Your task to perform on an android device: What's the weather like in Los Angeles? Image 0: 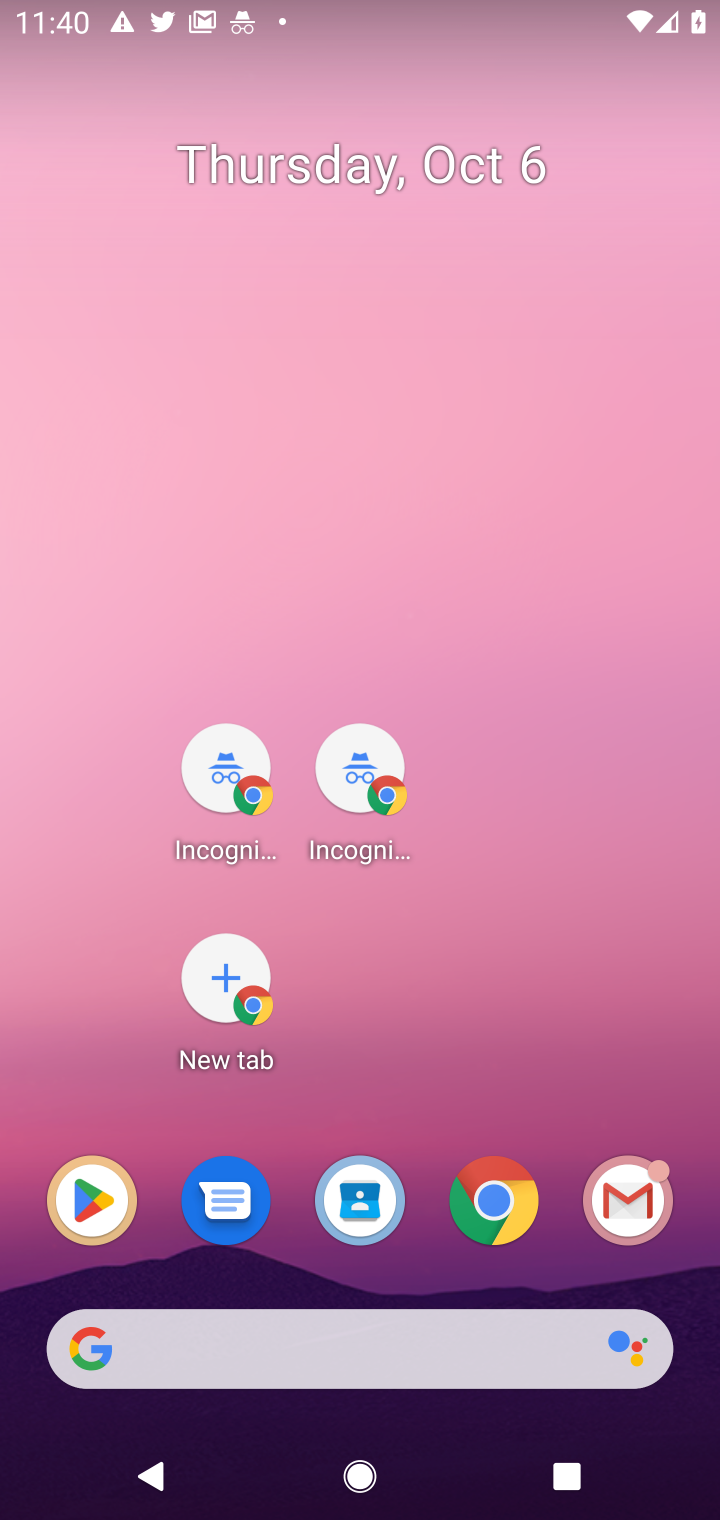
Step 0: click (486, 1205)
Your task to perform on an android device: What's the weather like in Los Angeles? Image 1: 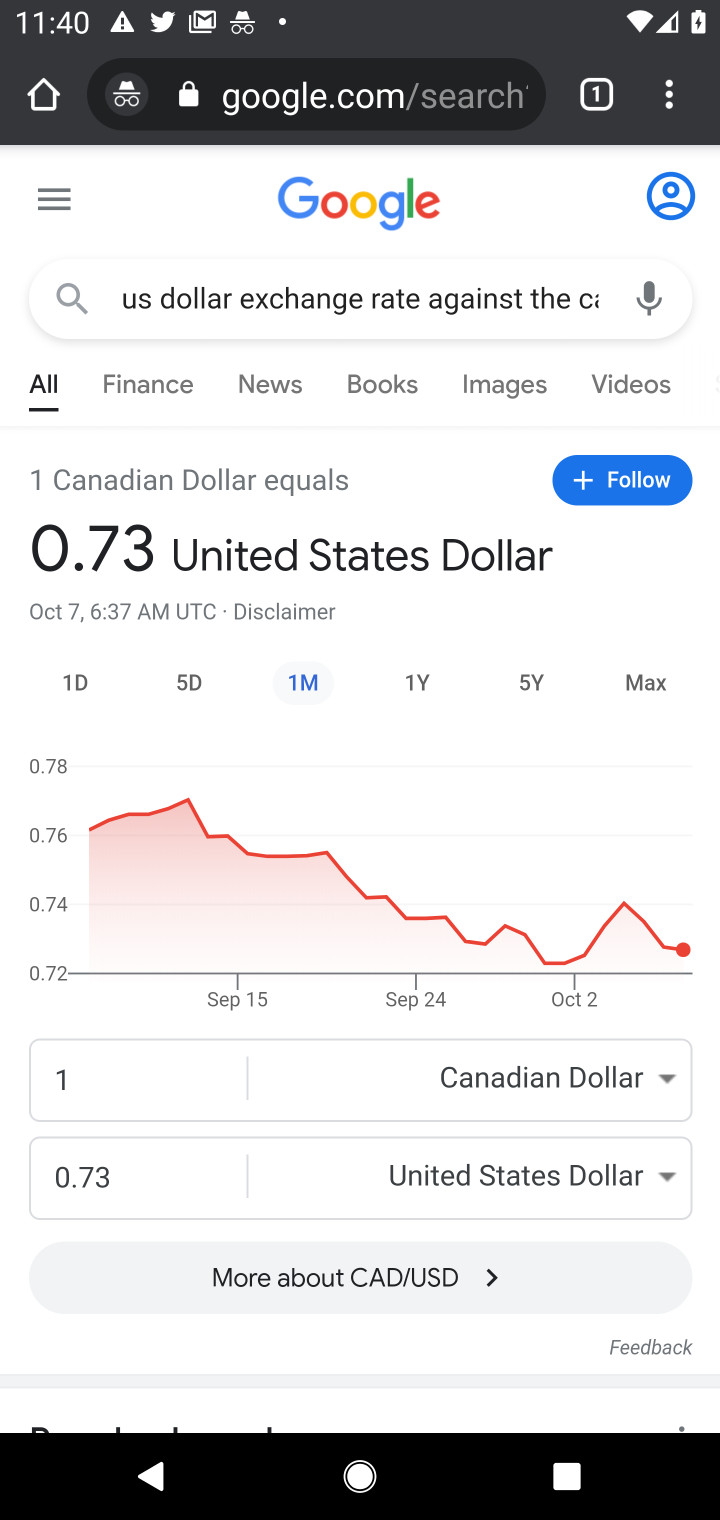
Step 1: click (416, 302)
Your task to perform on an android device: What's the weather like in Los Angeles? Image 2: 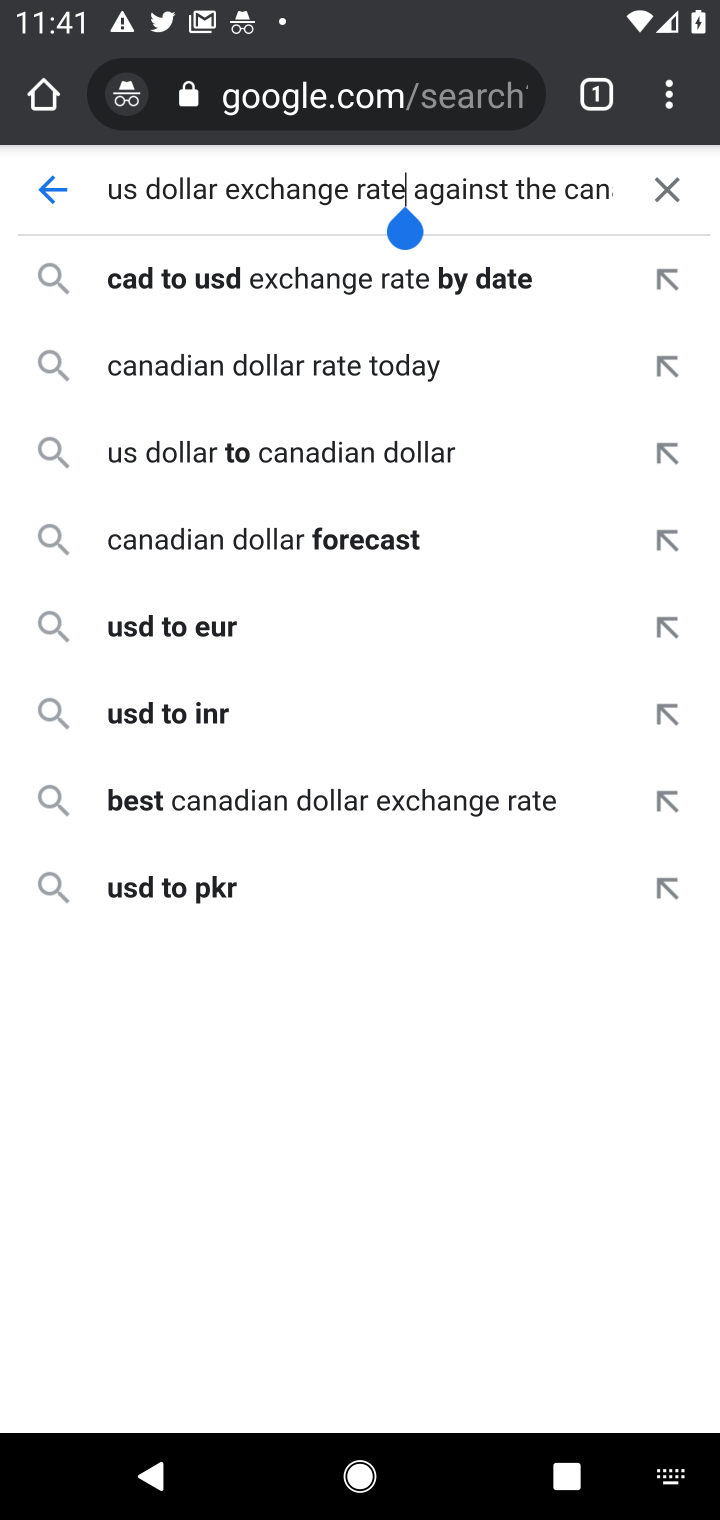
Step 2: click (660, 176)
Your task to perform on an android device: What's the weather like in Los Angeles? Image 3: 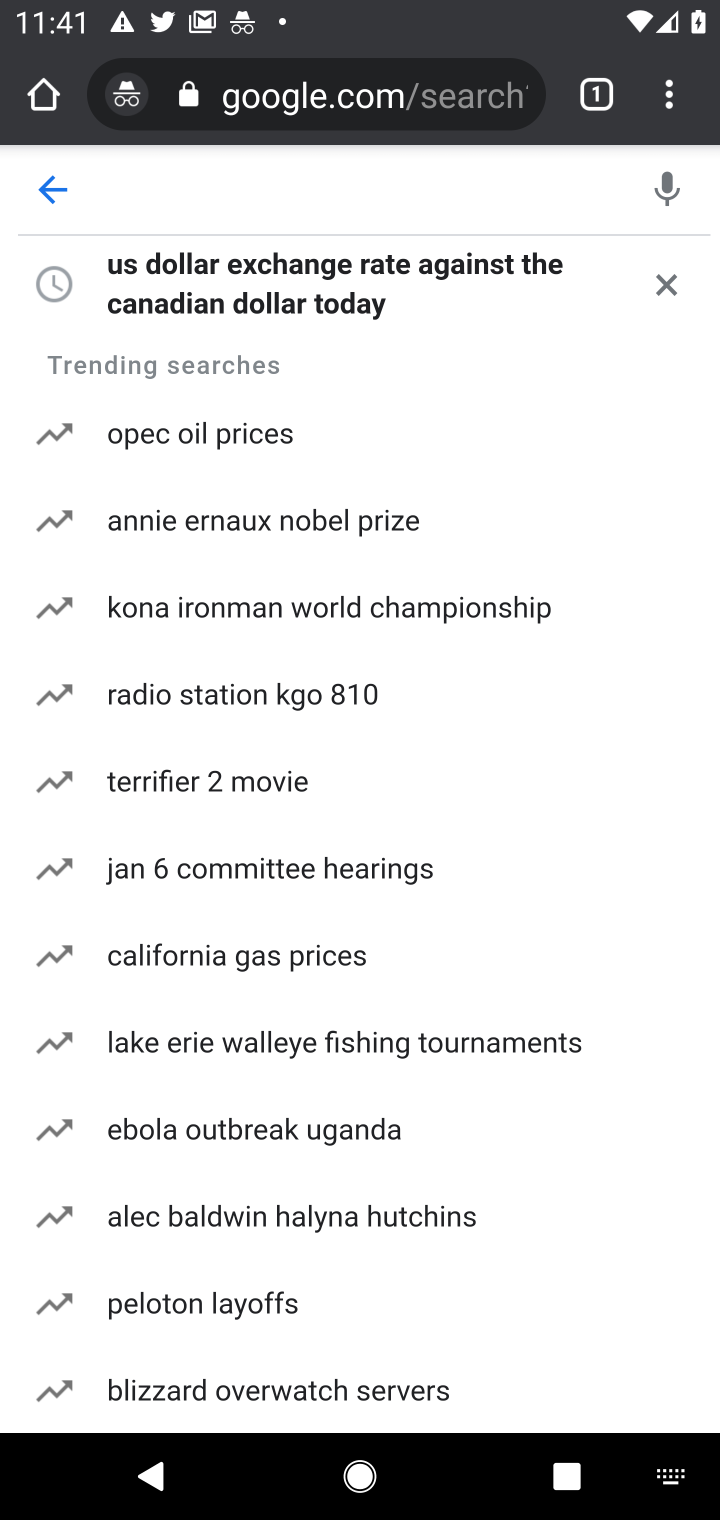
Step 3: type "weather like in los angeles"
Your task to perform on an android device: What's the weather like in Los Angeles? Image 4: 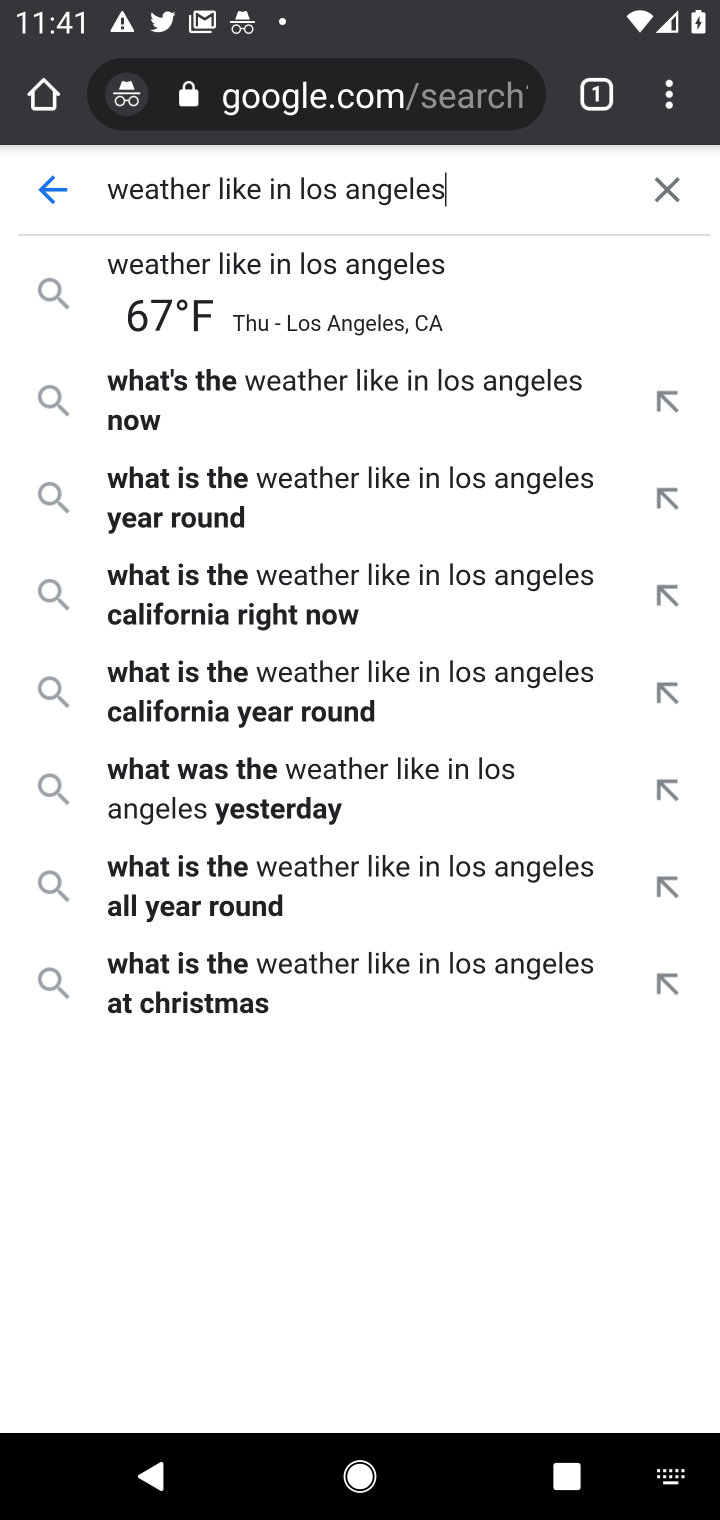
Step 4: type ""
Your task to perform on an android device: What's the weather like in Los Angeles? Image 5: 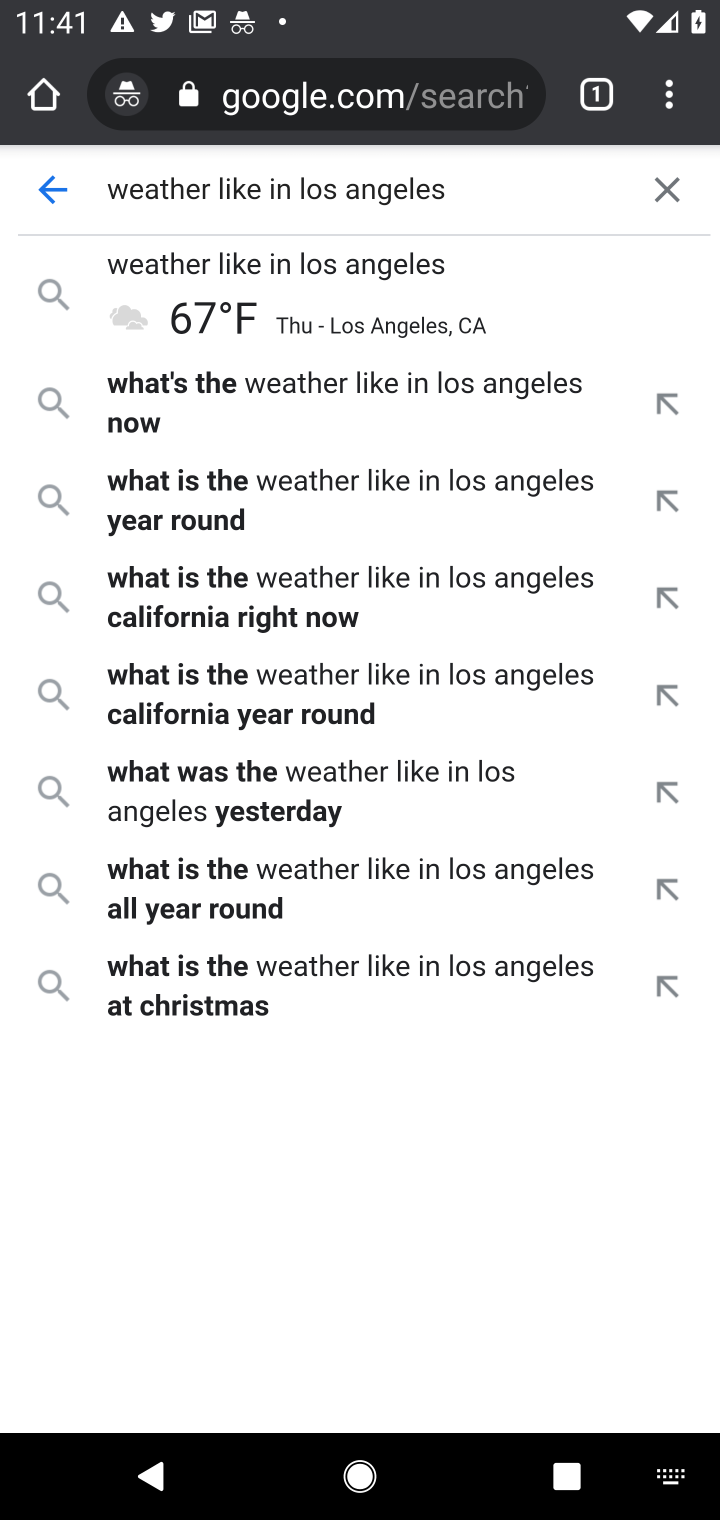
Step 5: click (436, 376)
Your task to perform on an android device: What's the weather like in Los Angeles? Image 6: 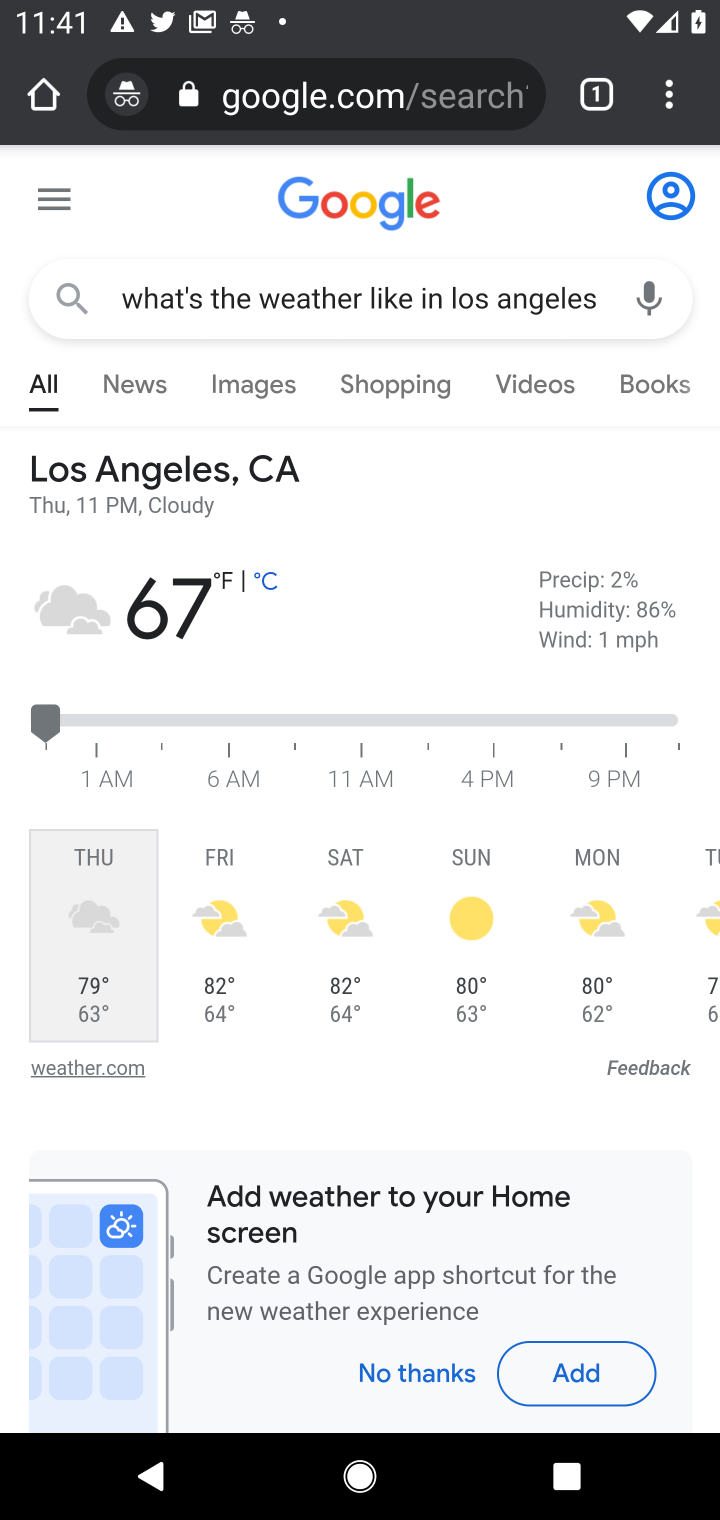
Step 6: task complete